Your task to perform on an android device: What's the weather today? Image 0: 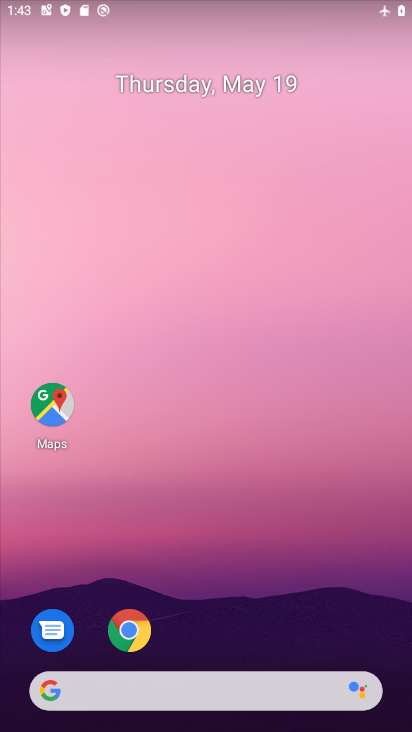
Step 0: click (216, 690)
Your task to perform on an android device: What's the weather today? Image 1: 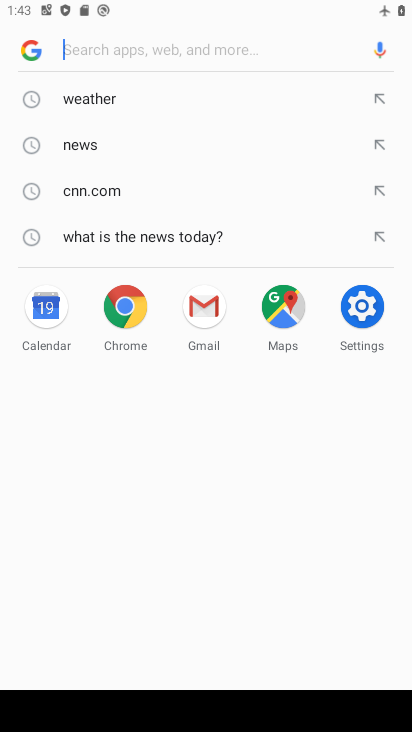
Step 1: click (88, 90)
Your task to perform on an android device: What's the weather today? Image 2: 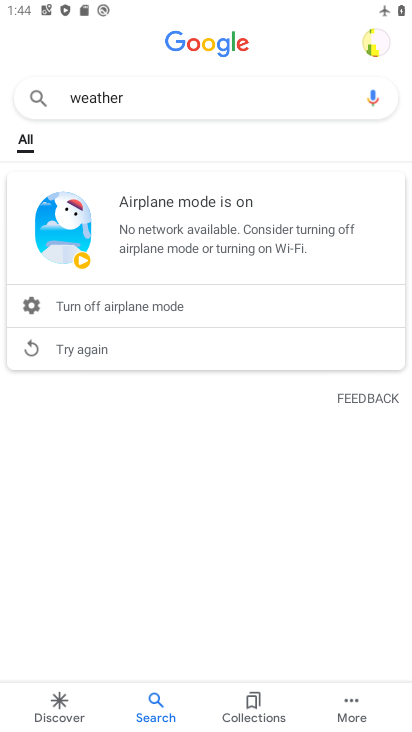
Step 2: task complete